Your task to perform on an android device: Open internet settings Image 0: 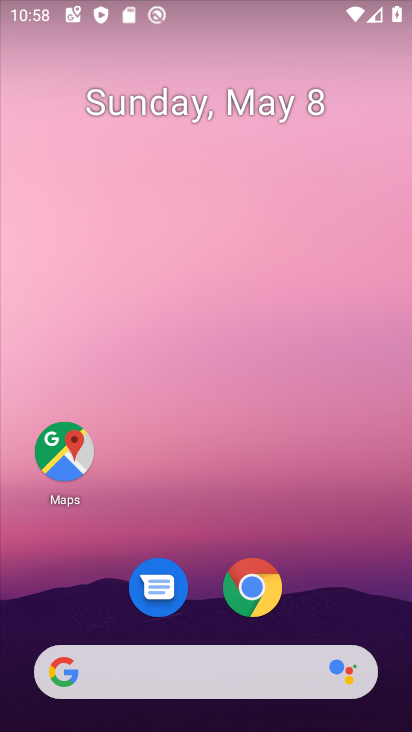
Step 0: drag from (350, 633) to (187, 200)
Your task to perform on an android device: Open internet settings Image 1: 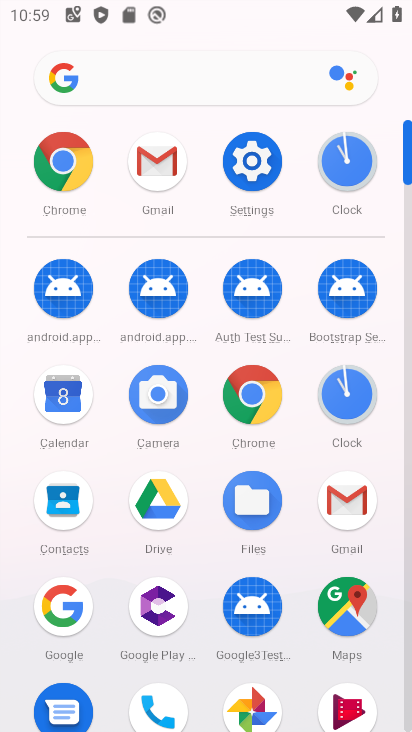
Step 1: click (243, 157)
Your task to perform on an android device: Open internet settings Image 2: 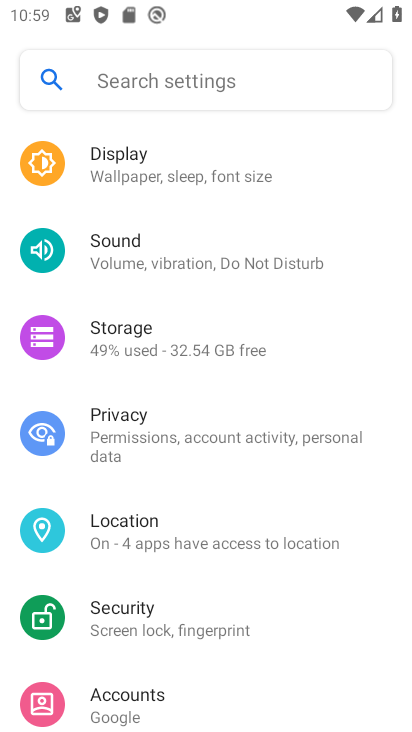
Step 2: drag from (148, 206) to (143, 463)
Your task to perform on an android device: Open internet settings Image 3: 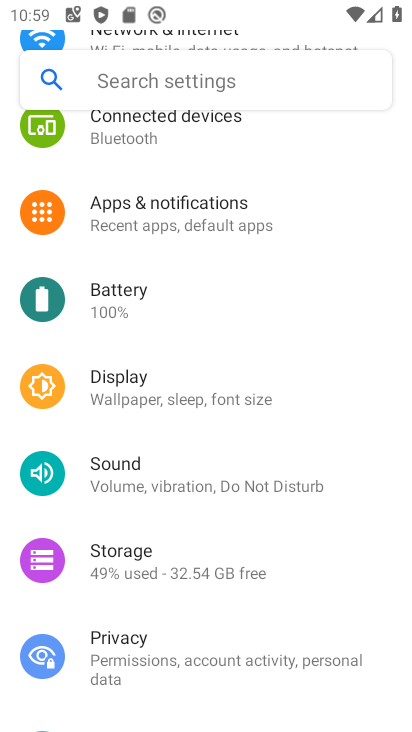
Step 3: click (163, 528)
Your task to perform on an android device: Open internet settings Image 4: 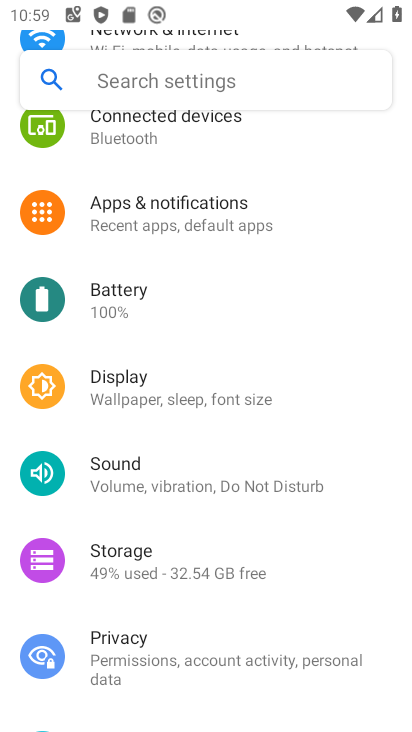
Step 4: drag from (144, 454) to (129, 525)
Your task to perform on an android device: Open internet settings Image 5: 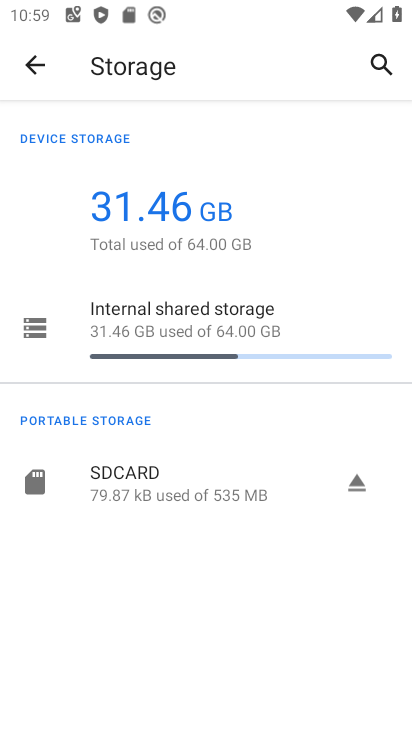
Step 5: drag from (173, 498) to (186, 551)
Your task to perform on an android device: Open internet settings Image 6: 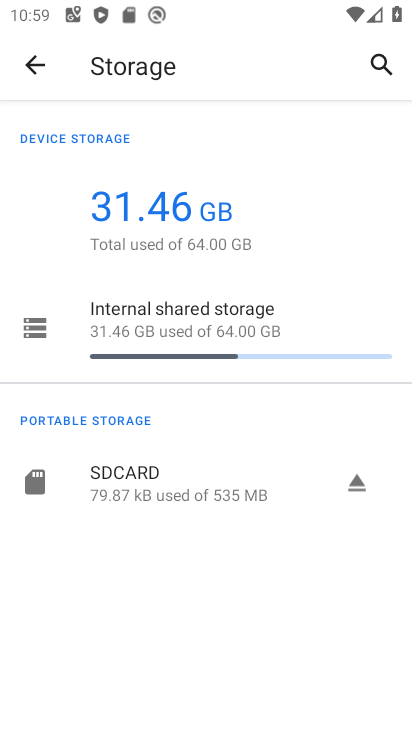
Step 6: click (33, 73)
Your task to perform on an android device: Open internet settings Image 7: 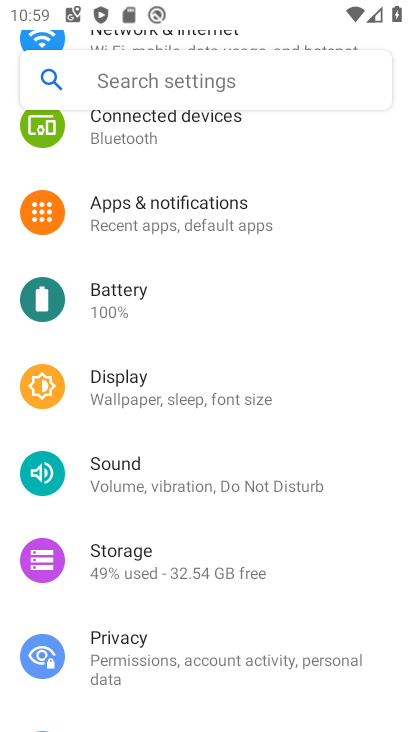
Step 7: drag from (188, 198) to (196, 511)
Your task to perform on an android device: Open internet settings Image 8: 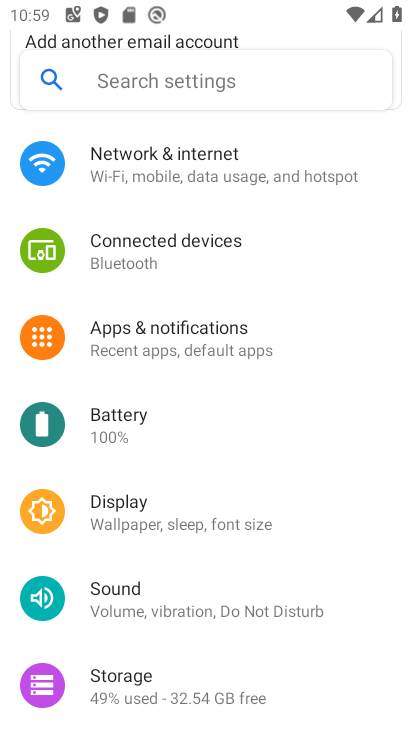
Step 8: click (178, 165)
Your task to perform on an android device: Open internet settings Image 9: 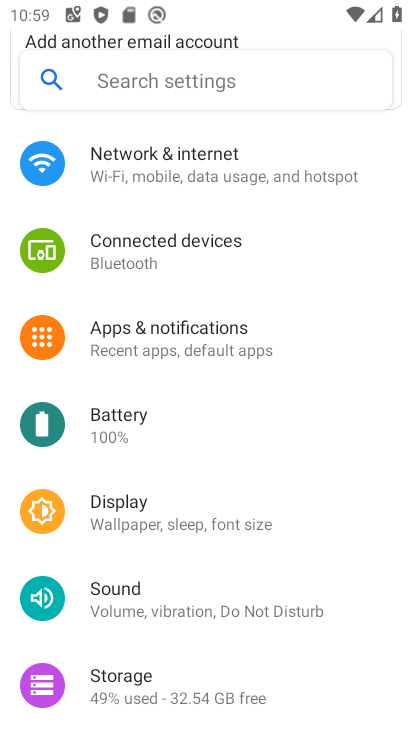
Step 9: click (178, 165)
Your task to perform on an android device: Open internet settings Image 10: 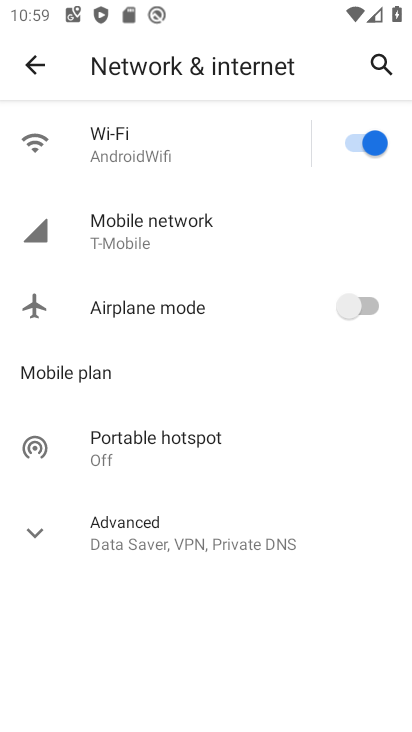
Step 10: task complete